Your task to perform on an android device: delete a single message in the gmail app Image 0: 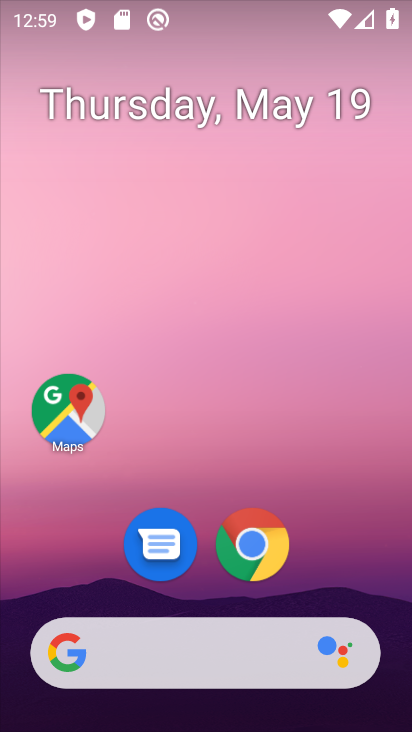
Step 0: press home button
Your task to perform on an android device: delete a single message in the gmail app Image 1: 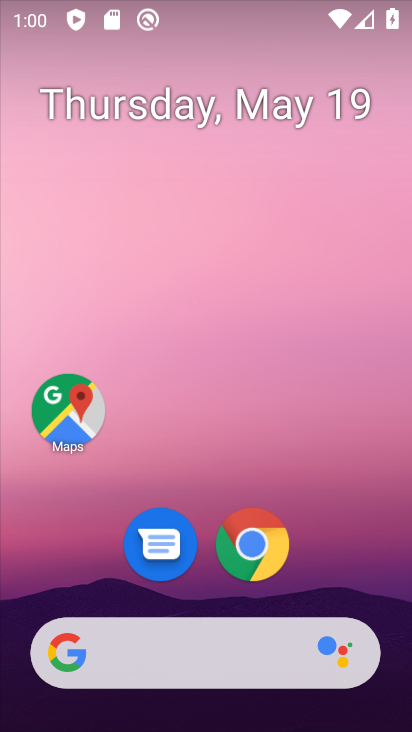
Step 1: drag from (239, 688) to (103, 243)
Your task to perform on an android device: delete a single message in the gmail app Image 2: 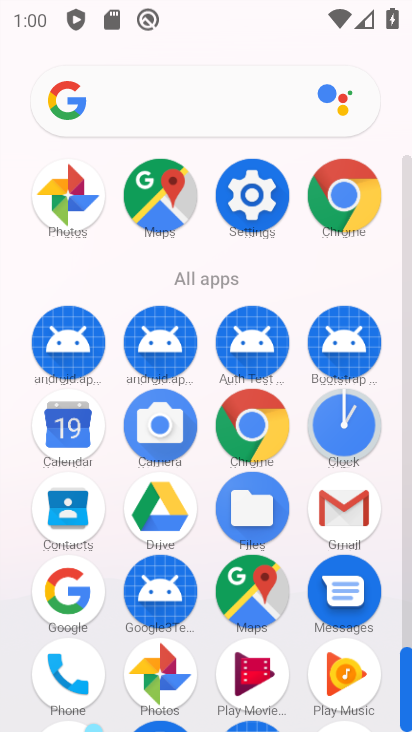
Step 2: click (342, 520)
Your task to perform on an android device: delete a single message in the gmail app Image 3: 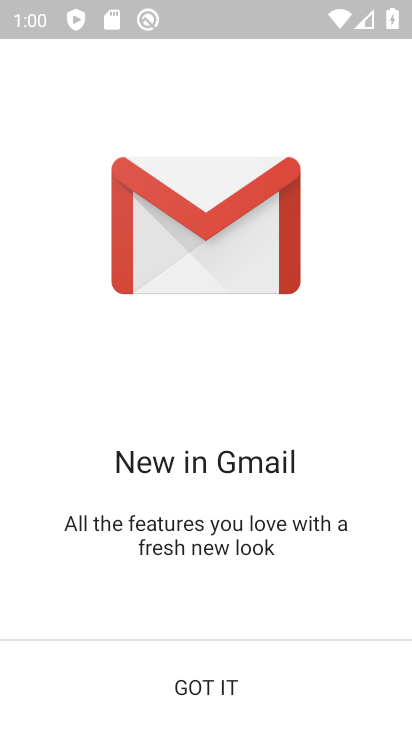
Step 3: click (194, 660)
Your task to perform on an android device: delete a single message in the gmail app Image 4: 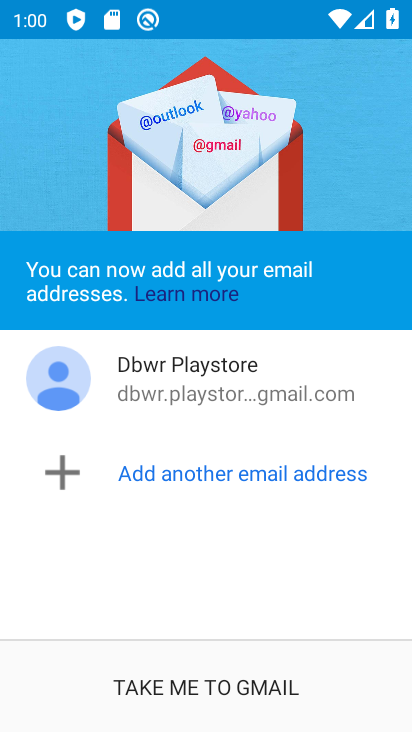
Step 4: click (171, 690)
Your task to perform on an android device: delete a single message in the gmail app Image 5: 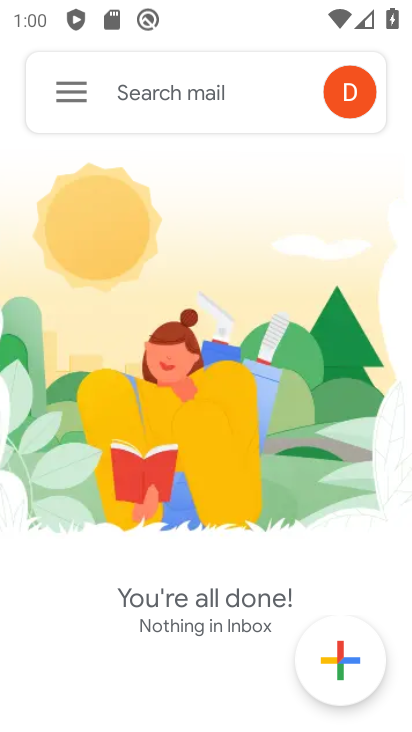
Step 5: task complete